Your task to perform on an android device: Show me the alarms in the clock app Image 0: 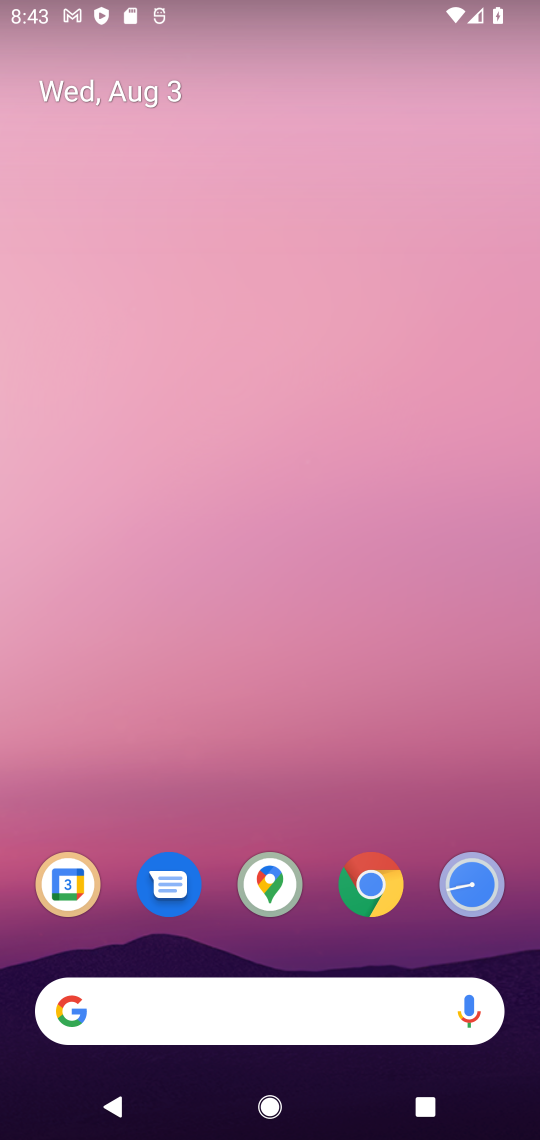
Step 0: click (458, 877)
Your task to perform on an android device: Show me the alarms in the clock app Image 1: 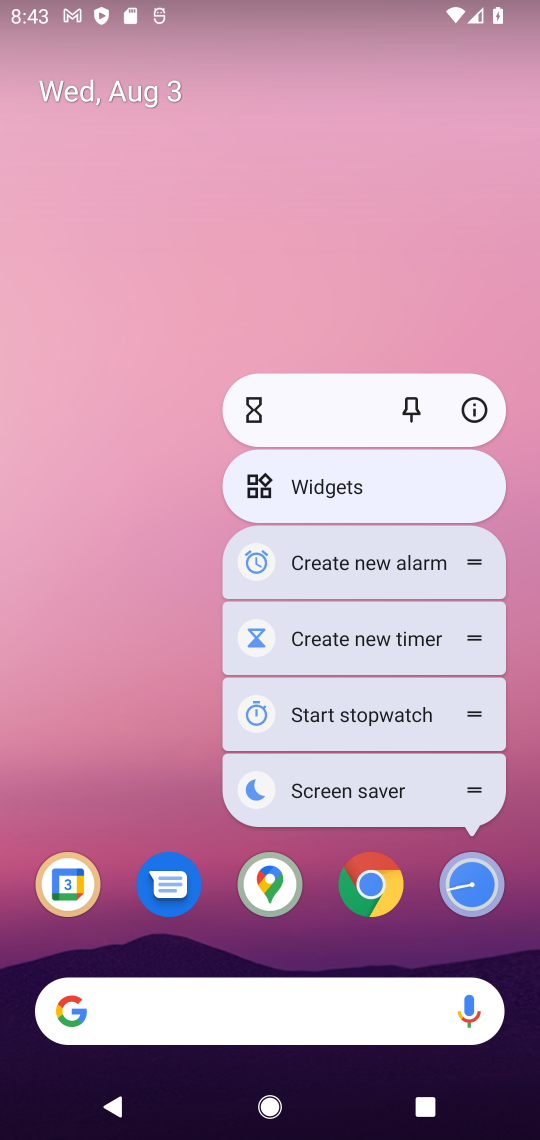
Step 1: click (473, 848)
Your task to perform on an android device: Show me the alarms in the clock app Image 2: 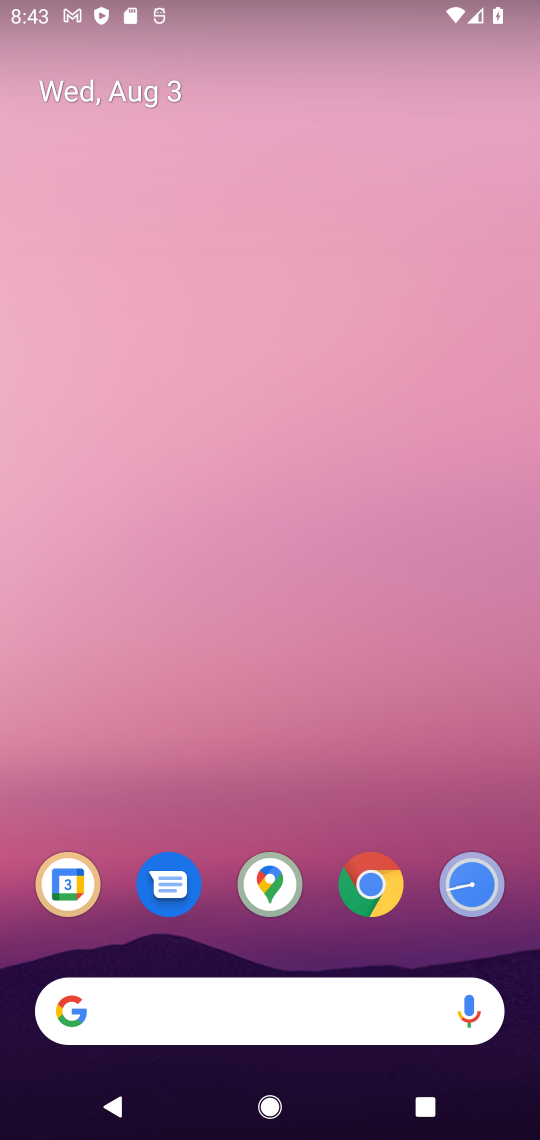
Step 2: click (456, 895)
Your task to perform on an android device: Show me the alarms in the clock app Image 3: 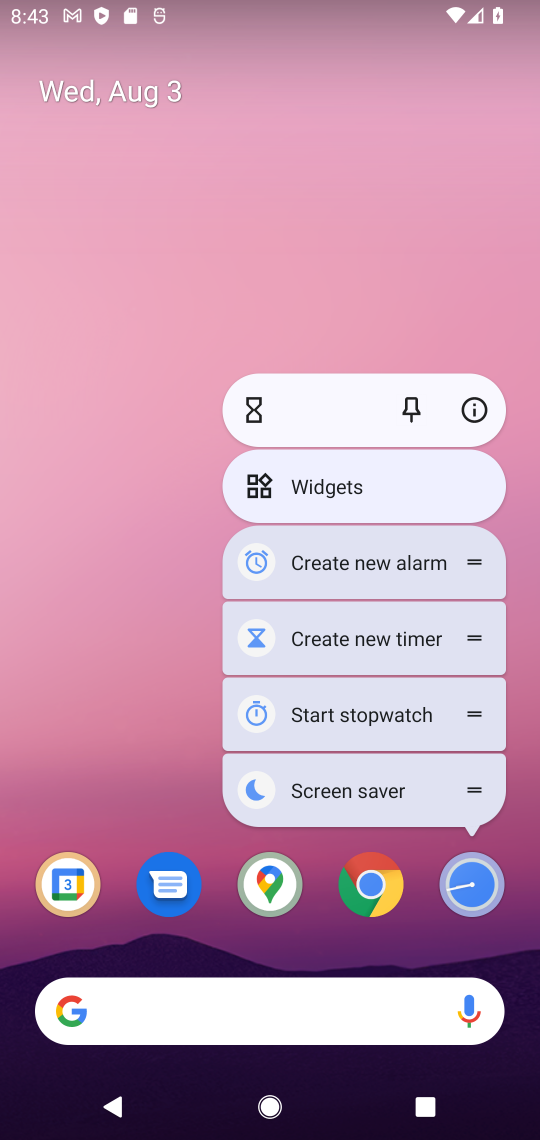
Step 3: click (471, 880)
Your task to perform on an android device: Show me the alarms in the clock app Image 4: 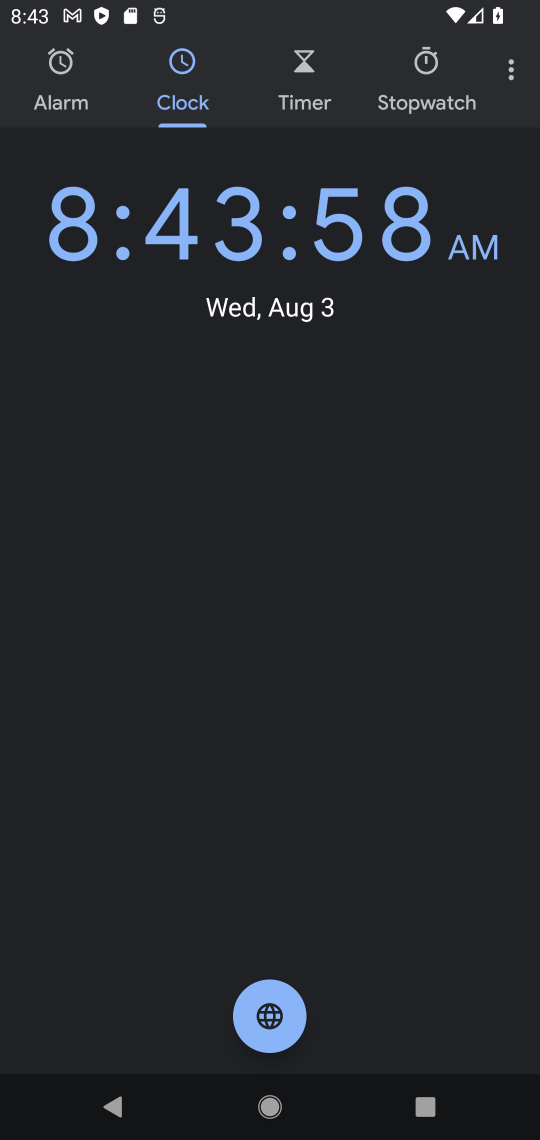
Step 4: click (52, 79)
Your task to perform on an android device: Show me the alarms in the clock app Image 5: 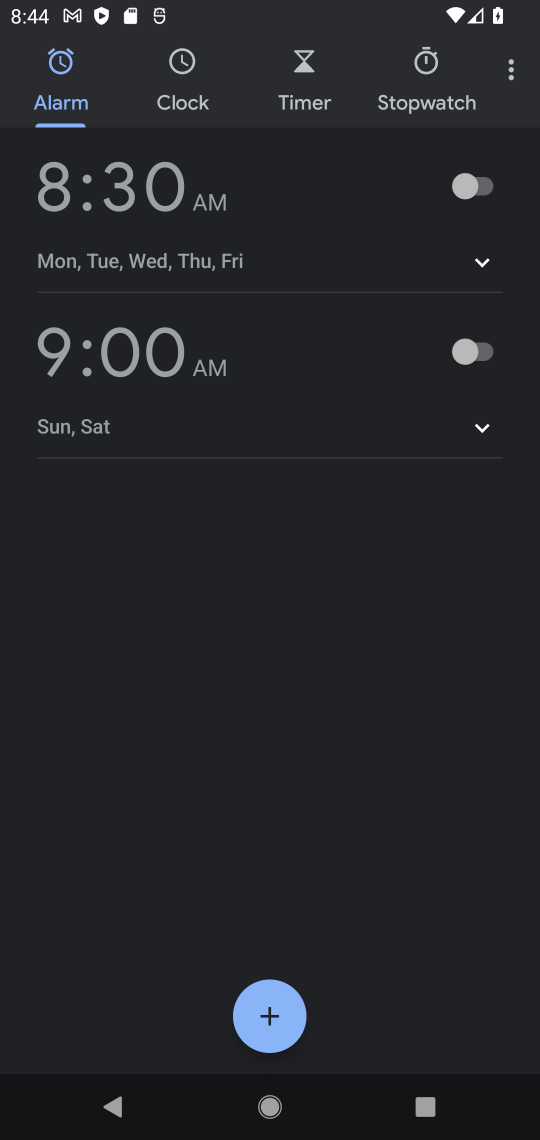
Step 5: task complete